Your task to perform on an android device: Open my contact list Image 0: 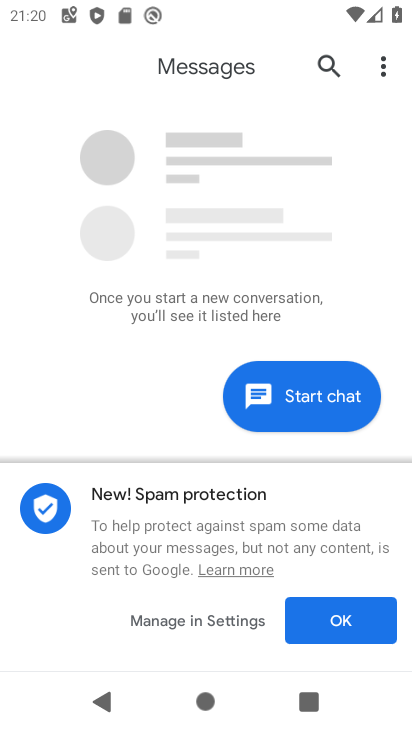
Step 0: press home button
Your task to perform on an android device: Open my contact list Image 1: 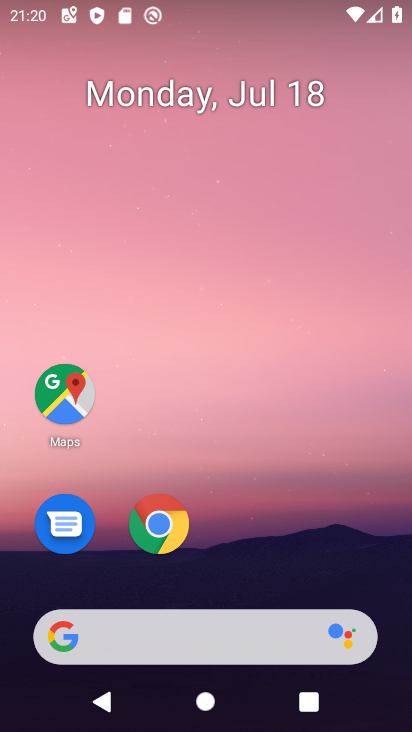
Step 1: drag from (309, 549) to (260, 36)
Your task to perform on an android device: Open my contact list Image 2: 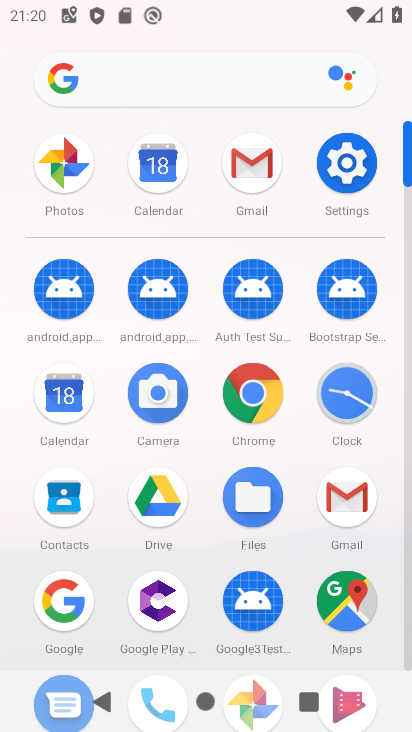
Step 2: click (73, 504)
Your task to perform on an android device: Open my contact list Image 3: 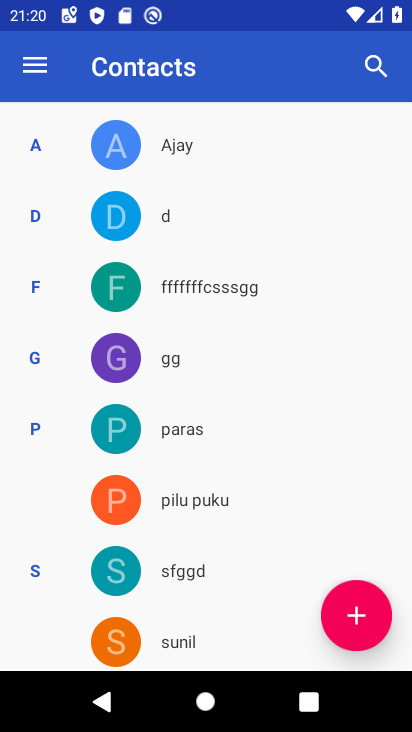
Step 3: task complete